Your task to perform on an android device: turn off airplane mode Image 0: 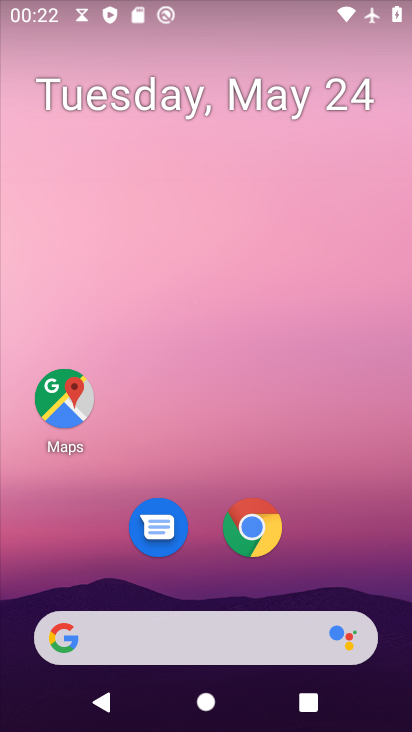
Step 0: press home button
Your task to perform on an android device: turn off airplane mode Image 1: 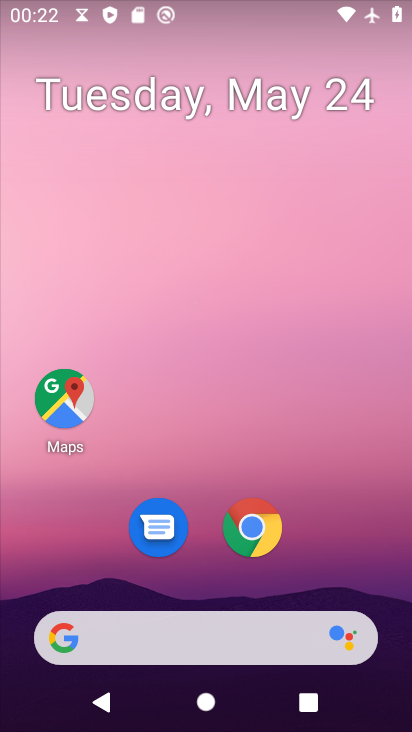
Step 1: drag from (150, 650) to (333, 51)
Your task to perform on an android device: turn off airplane mode Image 2: 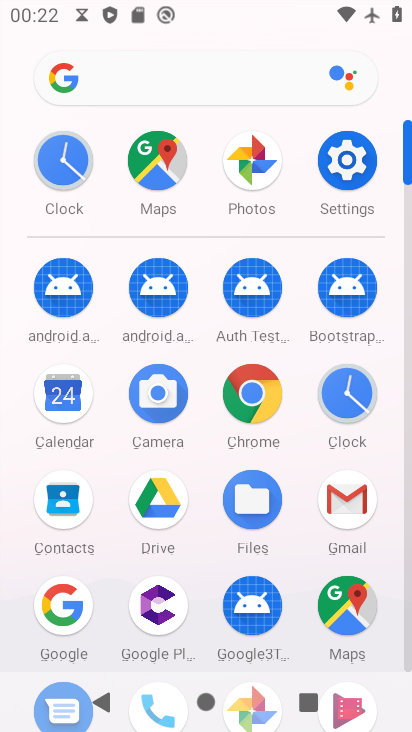
Step 2: click (350, 166)
Your task to perform on an android device: turn off airplane mode Image 3: 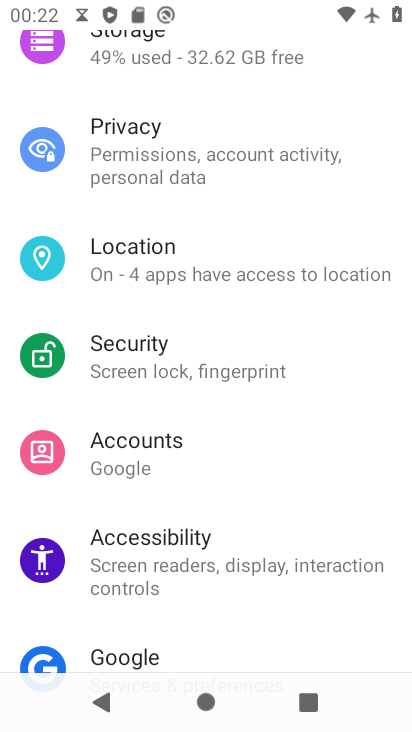
Step 3: drag from (324, 103) to (298, 637)
Your task to perform on an android device: turn off airplane mode Image 4: 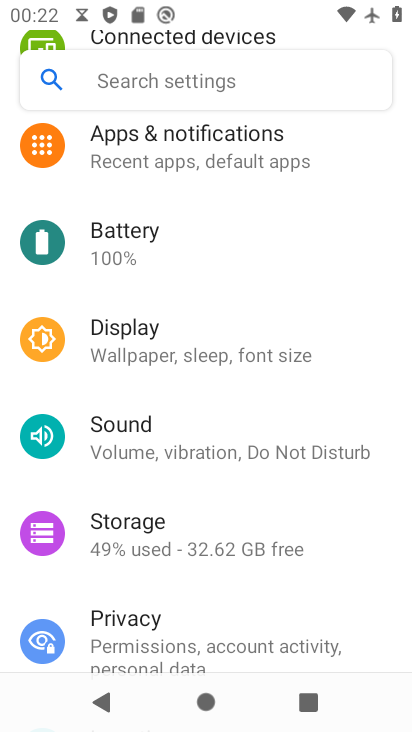
Step 4: drag from (277, 228) to (242, 638)
Your task to perform on an android device: turn off airplane mode Image 5: 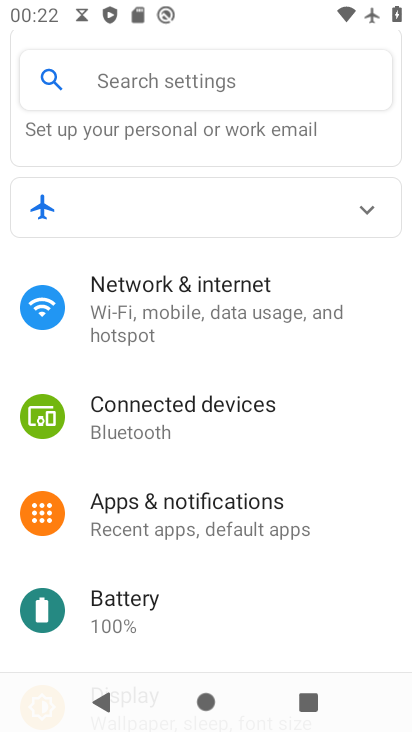
Step 5: click (215, 308)
Your task to perform on an android device: turn off airplane mode Image 6: 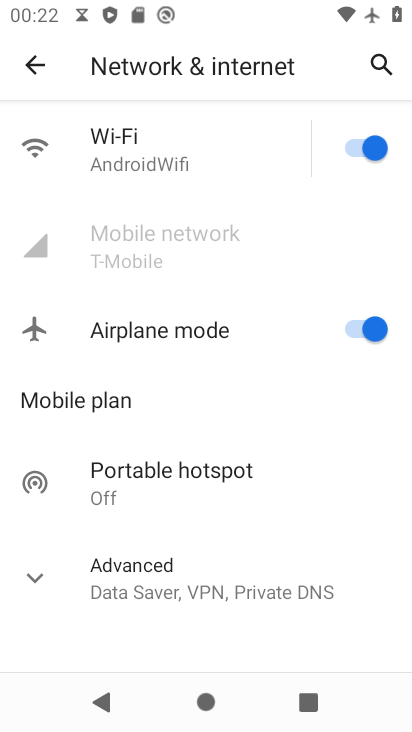
Step 6: click (365, 324)
Your task to perform on an android device: turn off airplane mode Image 7: 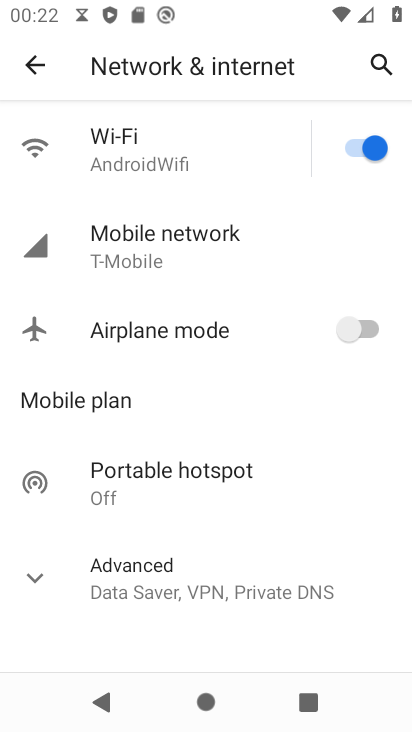
Step 7: task complete